Your task to perform on an android device: make emails show in primary in the gmail app Image 0: 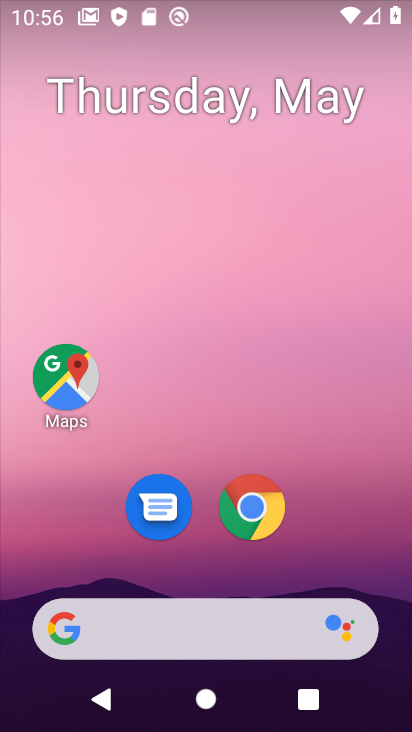
Step 0: drag from (198, 548) to (217, 110)
Your task to perform on an android device: make emails show in primary in the gmail app Image 1: 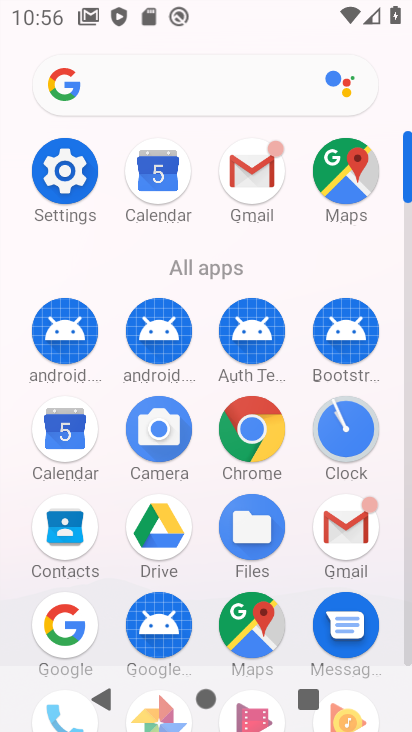
Step 1: click (263, 186)
Your task to perform on an android device: make emails show in primary in the gmail app Image 2: 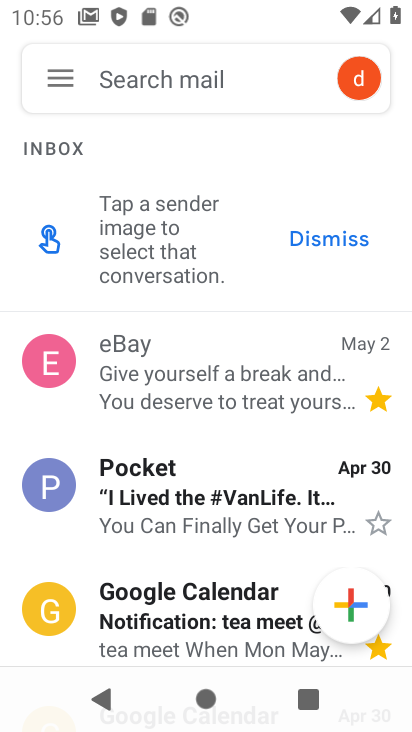
Step 2: click (58, 83)
Your task to perform on an android device: make emails show in primary in the gmail app Image 3: 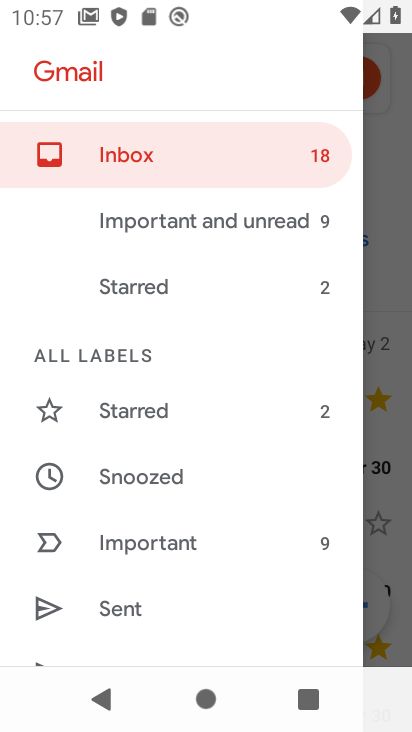
Step 3: drag from (167, 620) to (190, 216)
Your task to perform on an android device: make emails show in primary in the gmail app Image 4: 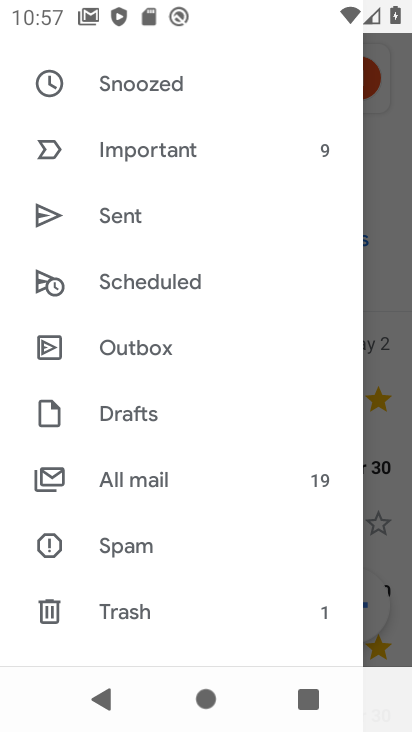
Step 4: drag from (185, 559) to (206, 276)
Your task to perform on an android device: make emails show in primary in the gmail app Image 5: 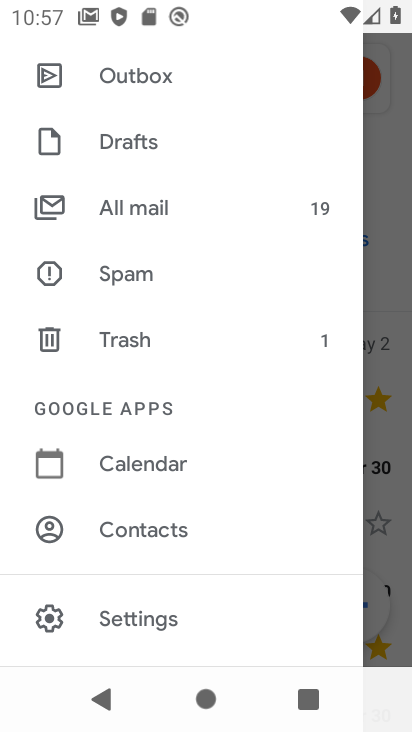
Step 5: click (196, 619)
Your task to perform on an android device: make emails show in primary in the gmail app Image 6: 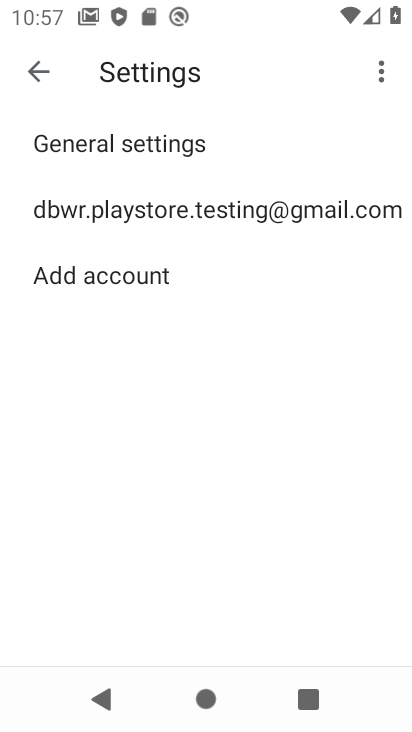
Step 6: click (168, 212)
Your task to perform on an android device: make emails show in primary in the gmail app Image 7: 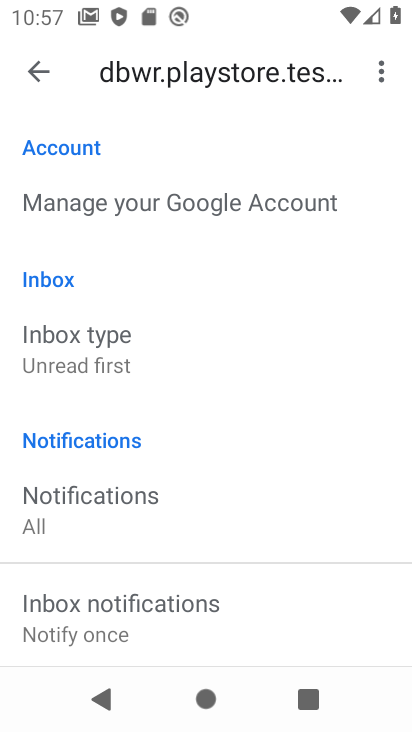
Step 7: click (114, 355)
Your task to perform on an android device: make emails show in primary in the gmail app Image 8: 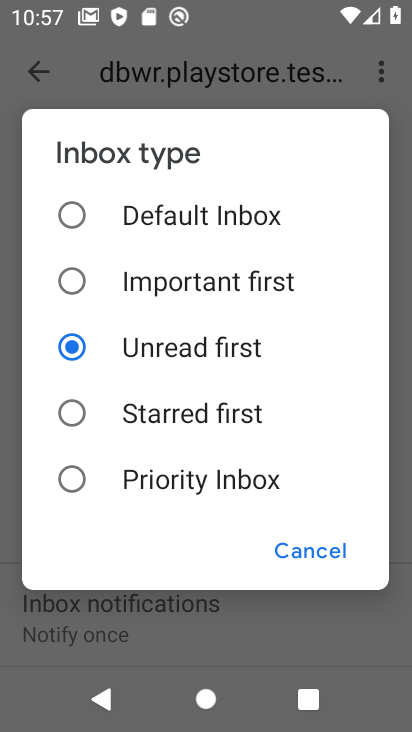
Step 8: click (307, 573)
Your task to perform on an android device: make emails show in primary in the gmail app Image 9: 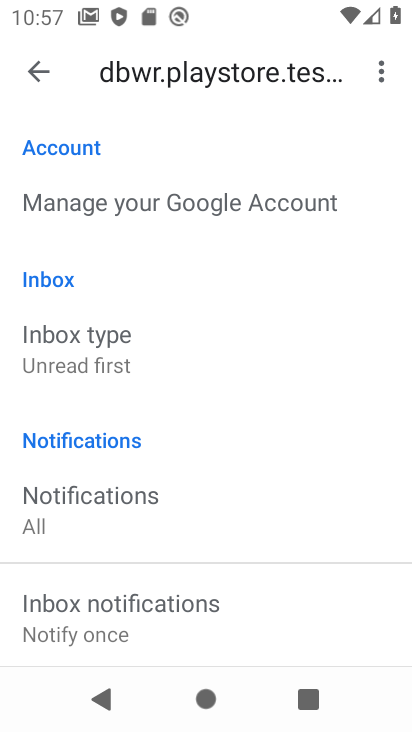
Step 9: click (308, 560)
Your task to perform on an android device: make emails show in primary in the gmail app Image 10: 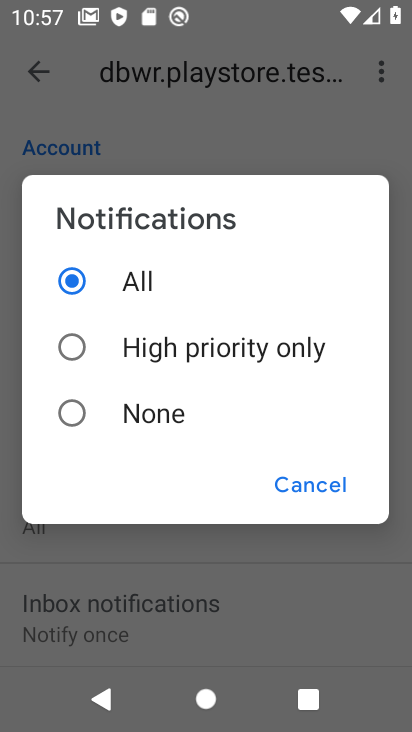
Step 10: task complete